Your task to perform on an android device: turn notification dots on Image 0: 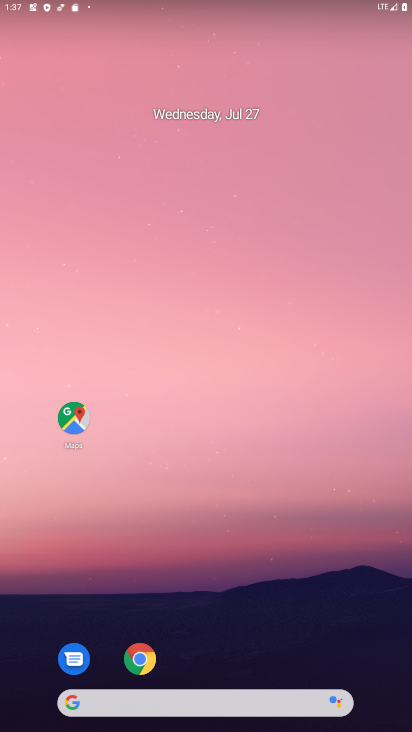
Step 0: drag from (226, 730) to (188, 22)
Your task to perform on an android device: turn notification dots on Image 1: 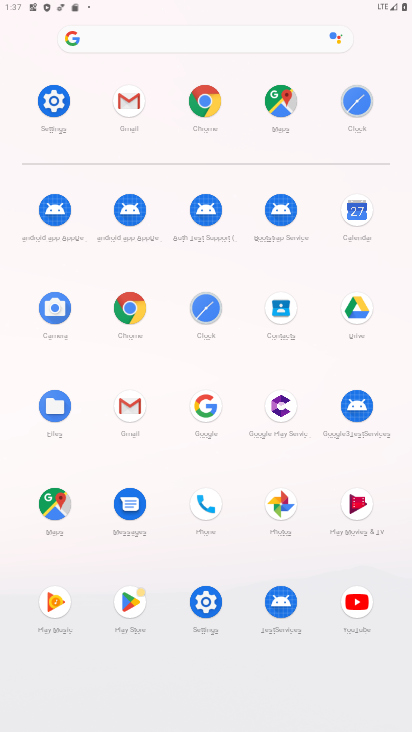
Step 1: click (54, 103)
Your task to perform on an android device: turn notification dots on Image 2: 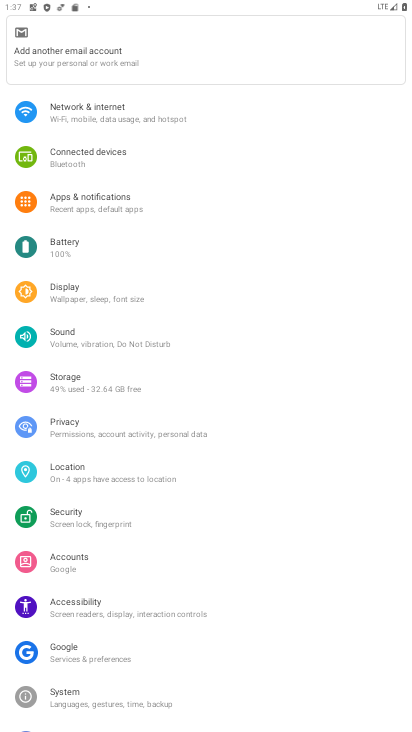
Step 2: click (102, 198)
Your task to perform on an android device: turn notification dots on Image 3: 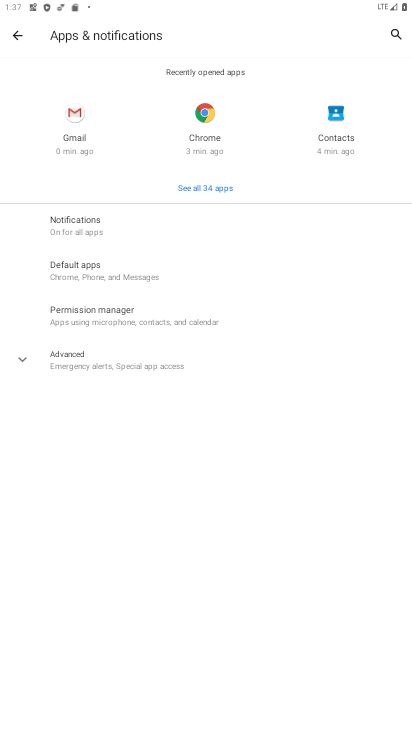
Step 3: click (83, 221)
Your task to perform on an android device: turn notification dots on Image 4: 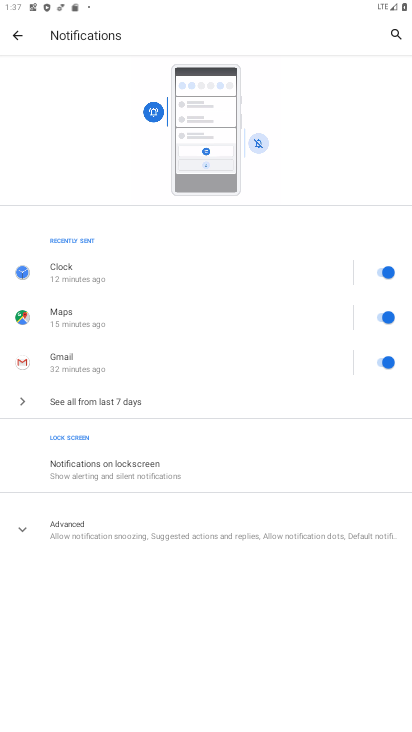
Step 4: click (140, 527)
Your task to perform on an android device: turn notification dots on Image 5: 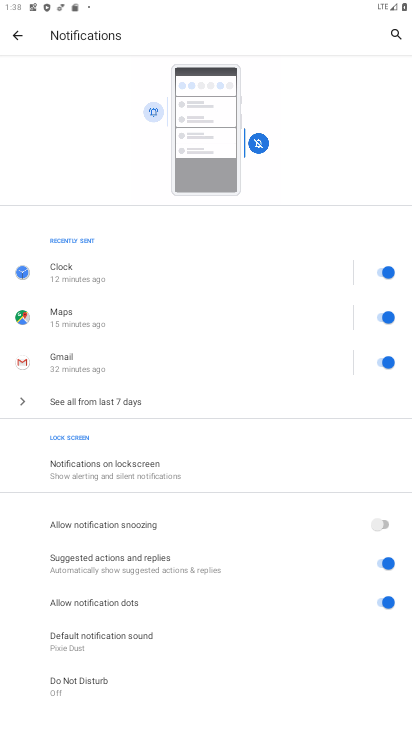
Step 5: task complete